Your task to perform on an android device: change the clock display to analog Image 0: 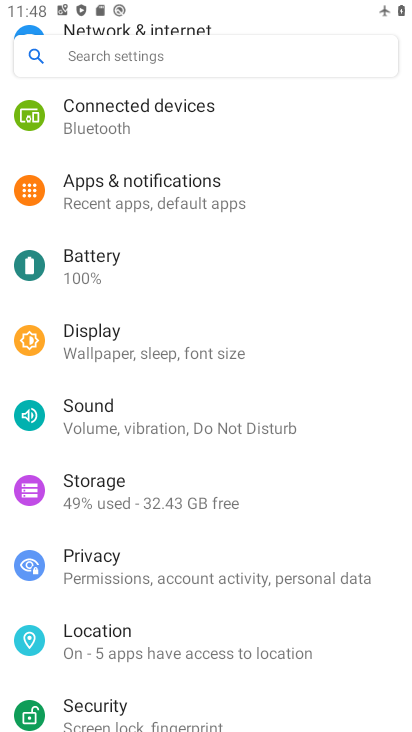
Step 0: press home button
Your task to perform on an android device: change the clock display to analog Image 1: 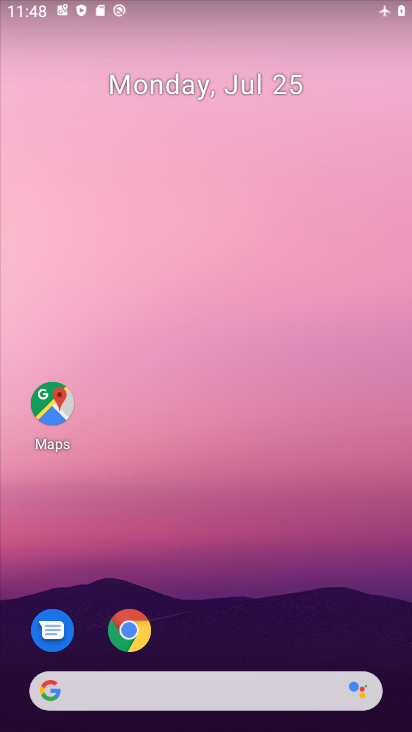
Step 1: drag from (345, 577) to (343, 106)
Your task to perform on an android device: change the clock display to analog Image 2: 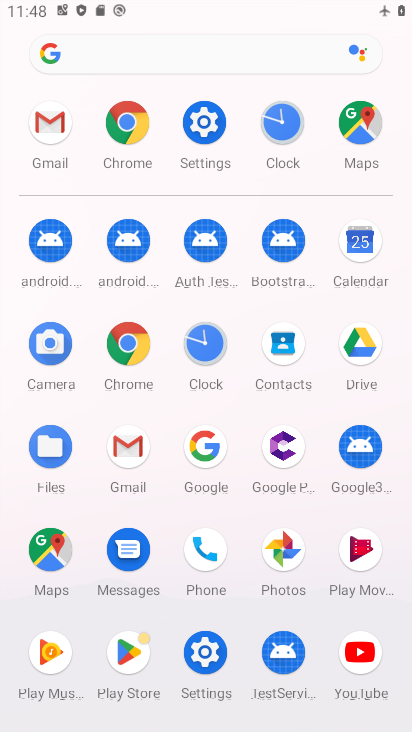
Step 2: click (200, 344)
Your task to perform on an android device: change the clock display to analog Image 3: 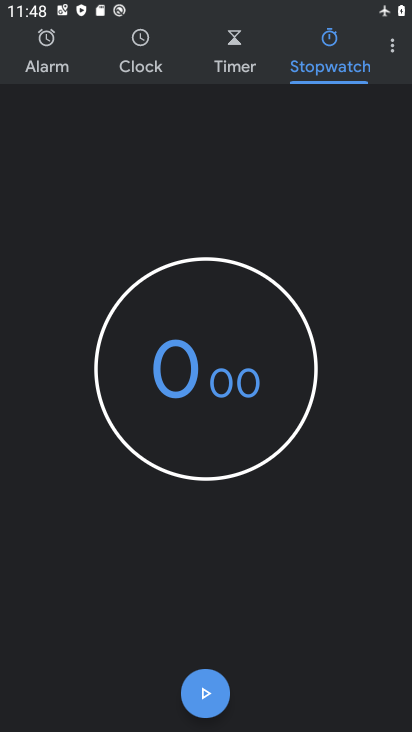
Step 3: click (392, 51)
Your task to perform on an android device: change the clock display to analog Image 4: 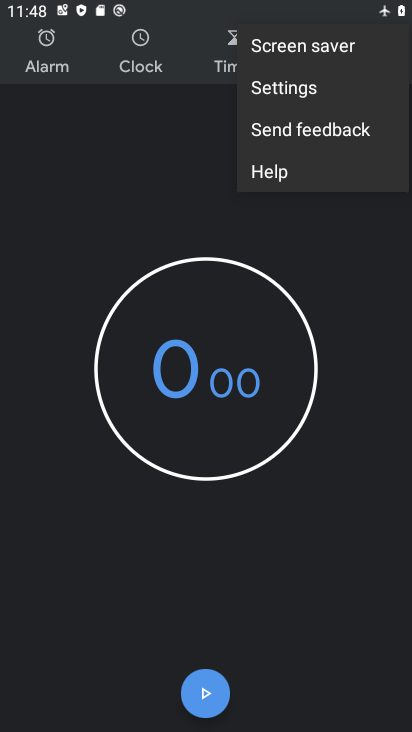
Step 4: click (323, 92)
Your task to perform on an android device: change the clock display to analog Image 5: 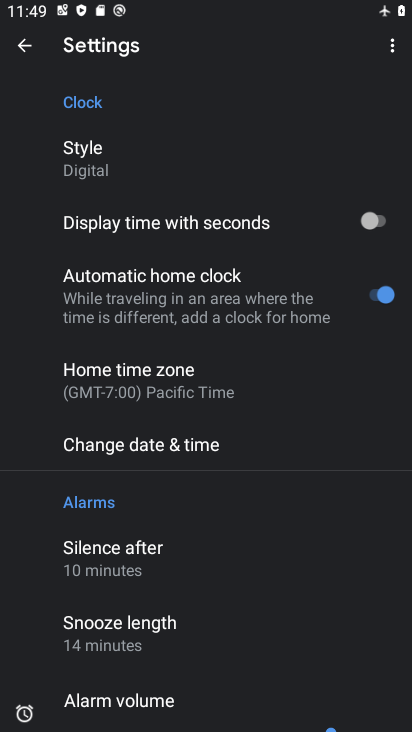
Step 5: drag from (315, 484) to (324, 410)
Your task to perform on an android device: change the clock display to analog Image 6: 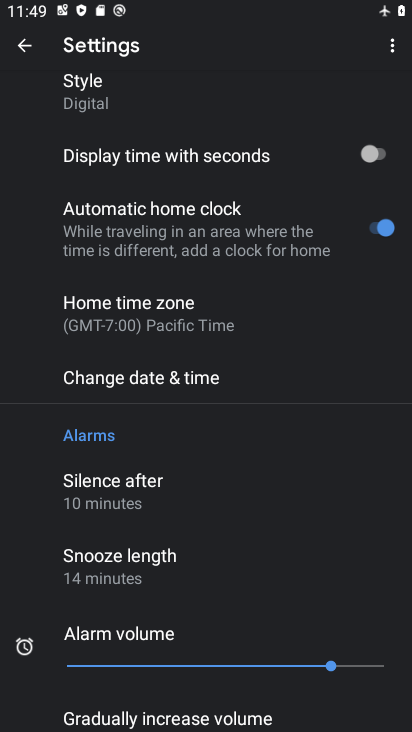
Step 6: drag from (317, 516) to (320, 425)
Your task to perform on an android device: change the clock display to analog Image 7: 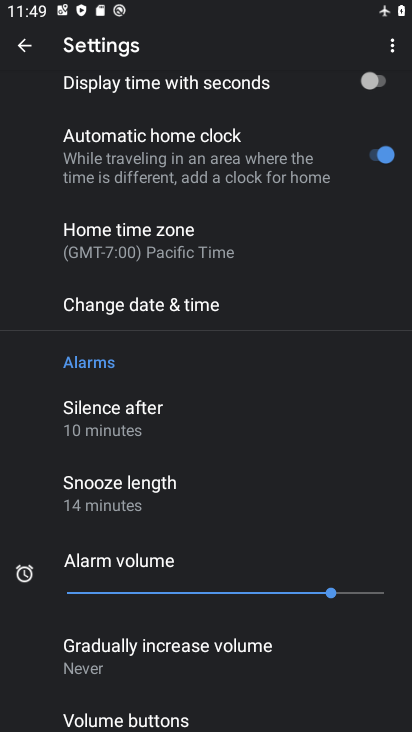
Step 7: drag from (330, 517) to (347, 426)
Your task to perform on an android device: change the clock display to analog Image 8: 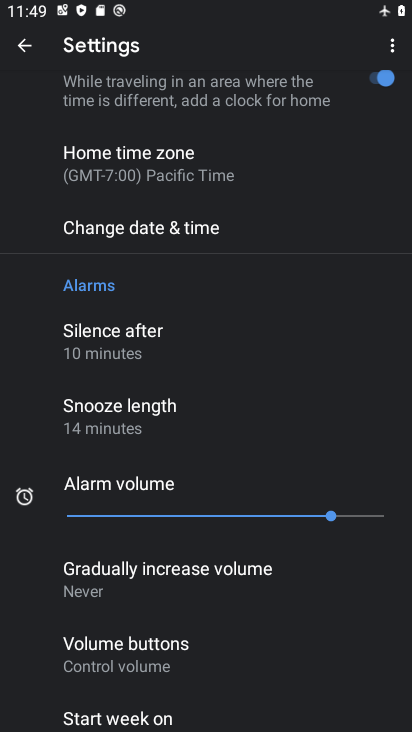
Step 8: drag from (367, 593) to (367, 478)
Your task to perform on an android device: change the clock display to analog Image 9: 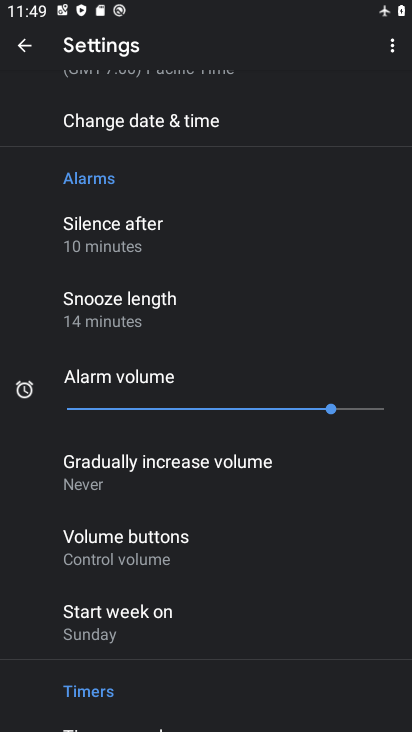
Step 9: drag from (366, 595) to (367, 501)
Your task to perform on an android device: change the clock display to analog Image 10: 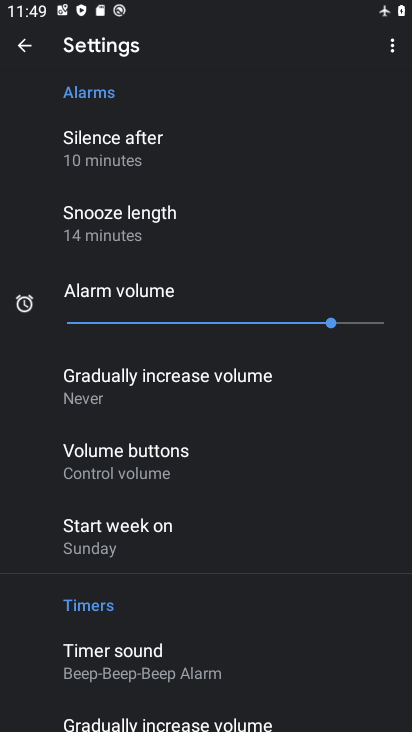
Step 10: drag from (353, 647) to (346, 399)
Your task to perform on an android device: change the clock display to analog Image 11: 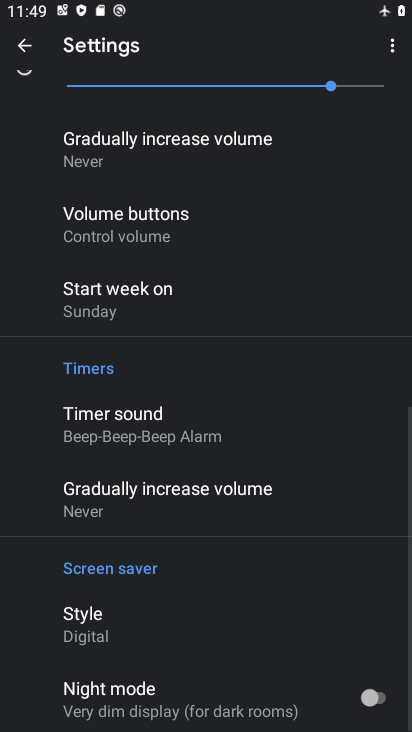
Step 11: drag from (343, 324) to (344, 435)
Your task to perform on an android device: change the clock display to analog Image 12: 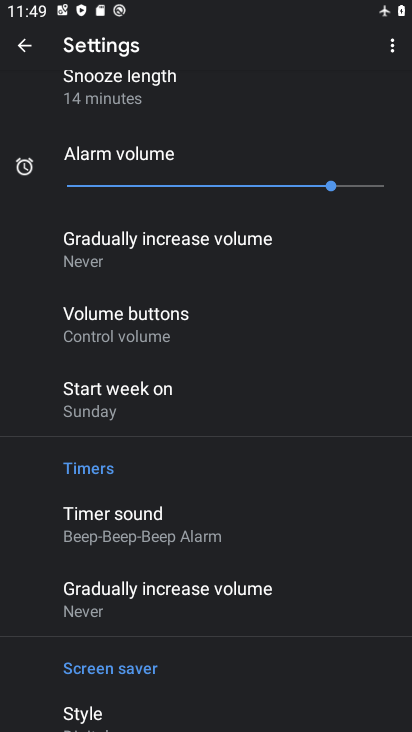
Step 12: drag from (344, 344) to (355, 454)
Your task to perform on an android device: change the clock display to analog Image 13: 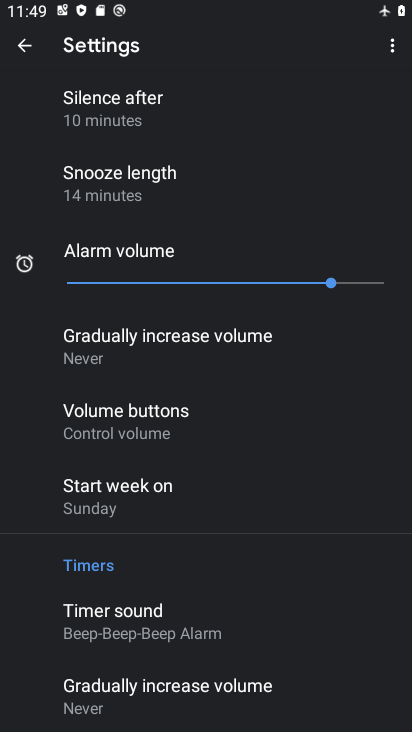
Step 13: drag from (356, 342) to (360, 435)
Your task to perform on an android device: change the clock display to analog Image 14: 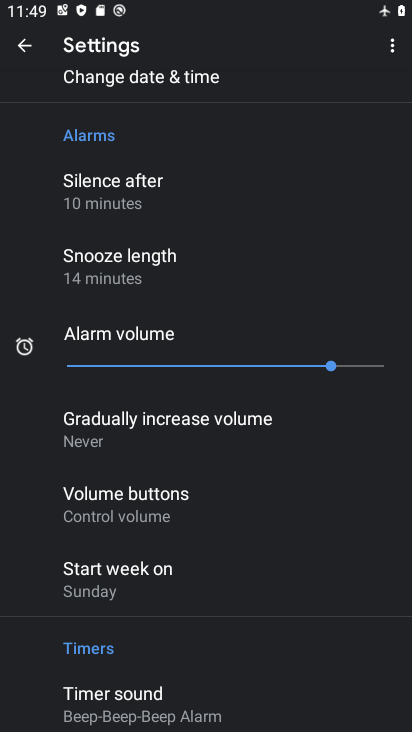
Step 14: drag from (359, 324) to (356, 438)
Your task to perform on an android device: change the clock display to analog Image 15: 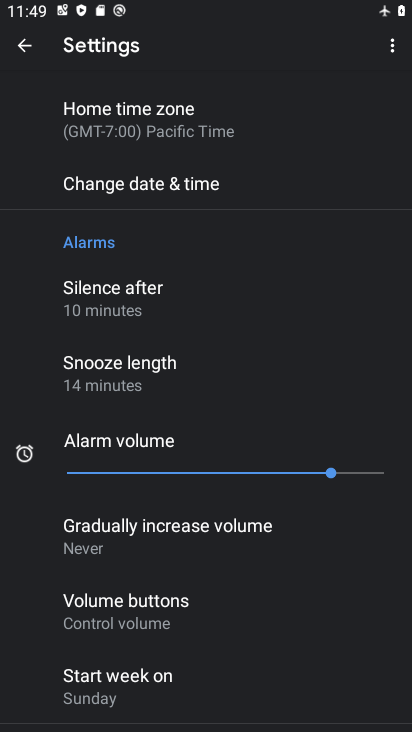
Step 15: drag from (353, 278) to (347, 389)
Your task to perform on an android device: change the clock display to analog Image 16: 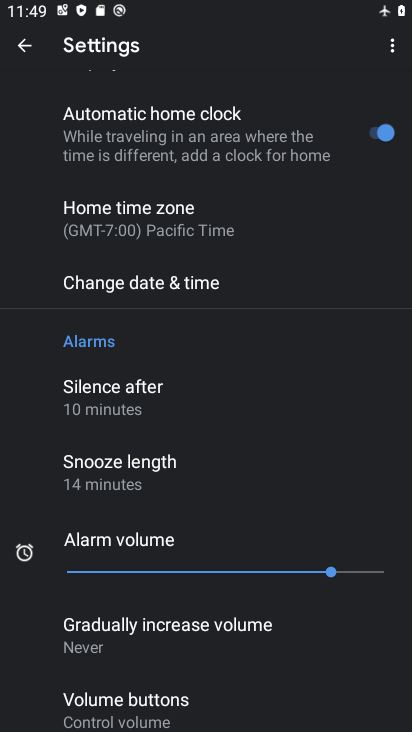
Step 16: drag from (346, 259) to (346, 375)
Your task to perform on an android device: change the clock display to analog Image 17: 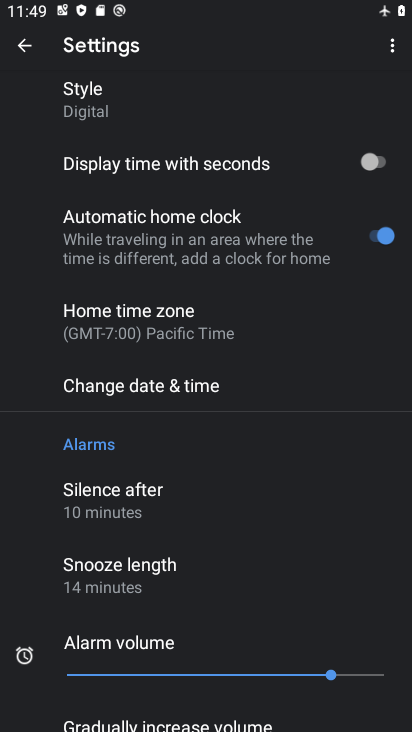
Step 17: drag from (320, 214) to (304, 409)
Your task to perform on an android device: change the clock display to analog Image 18: 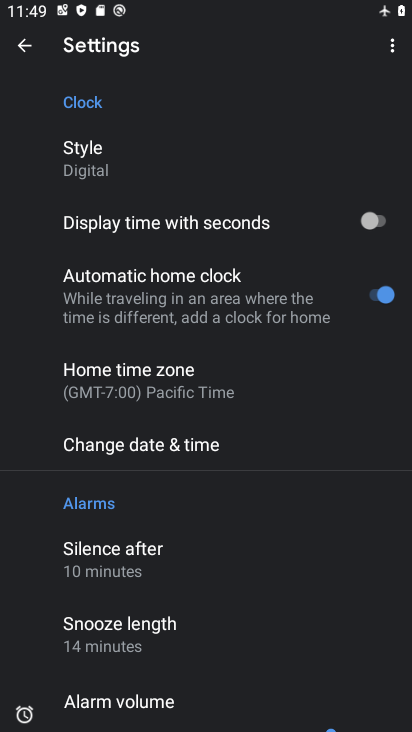
Step 18: click (135, 179)
Your task to perform on an android device: change the clock display to analog Image 19: 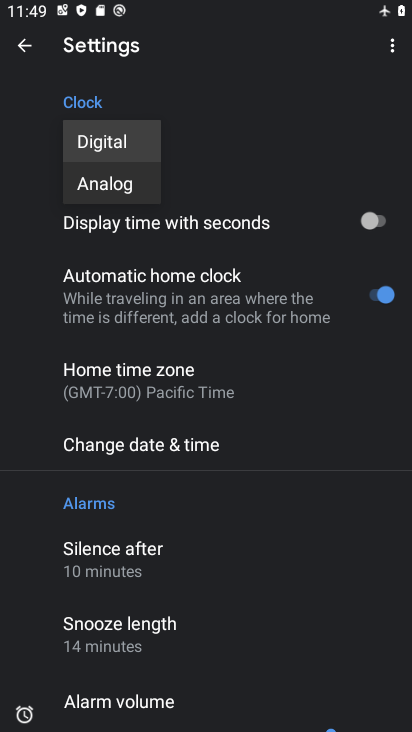
Step 19: click (135, 179)
Your task to perform on an android device: change the clock display to analog Image 20: 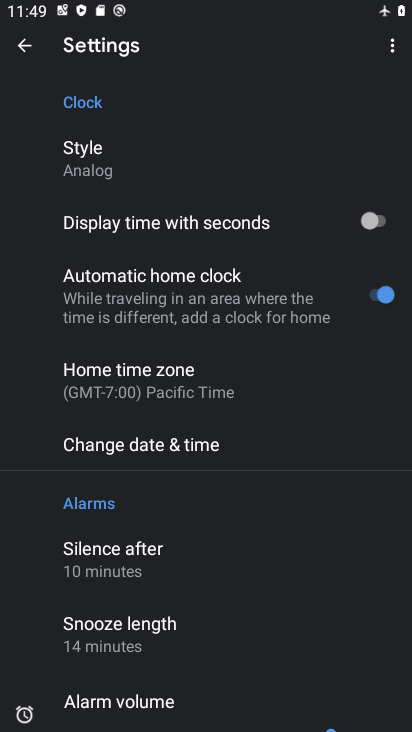
Step 20: task complete